Your task to perform on an android device: star an email in the gmail app Image 0: 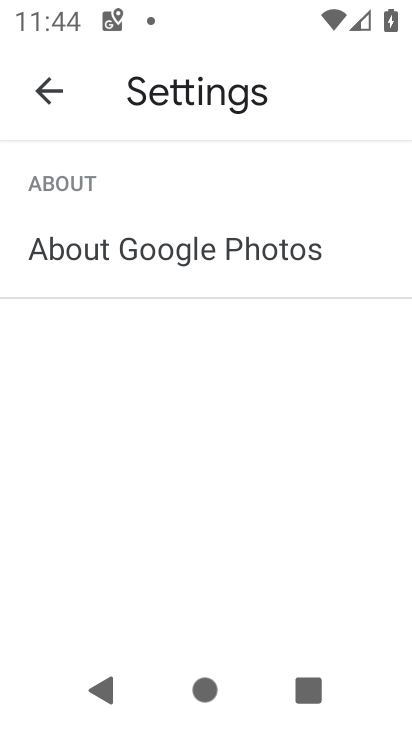
Step 0: drag from (262, 639) to (96, 44)
Your task to perform on an android device: star an email in the gmail app Image 1: 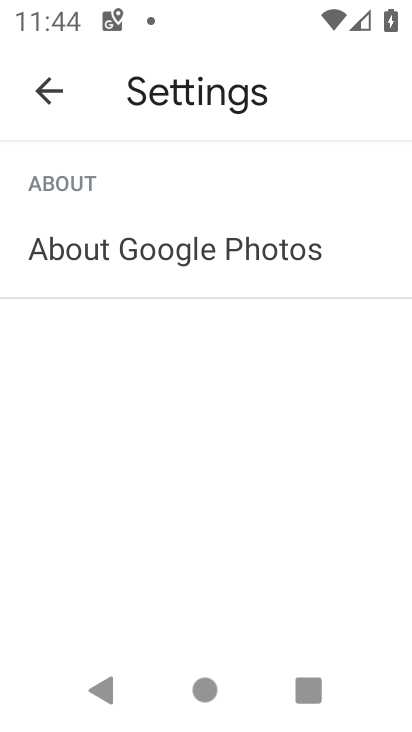
Step 1: click (46, 99)
Your task to perform on an android device: star an email in the gmail app Image 2: 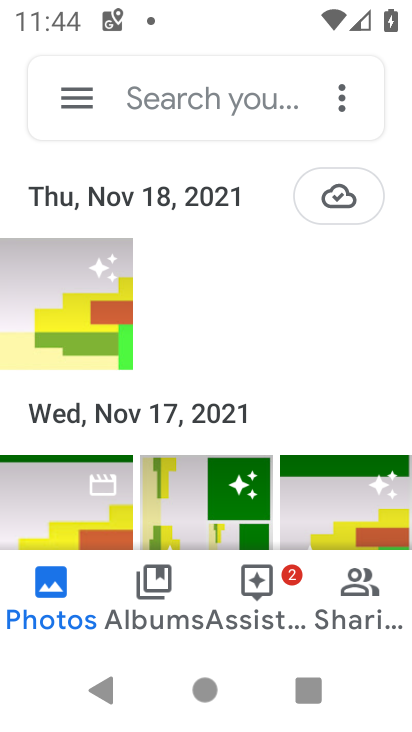
Step 2: press back button
Your task to perform on an android device: star an email in the gmail app Image 3: 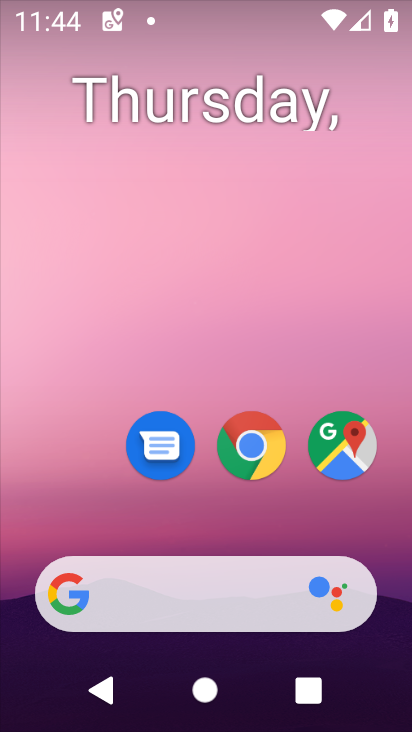
Step 3: drag from (253, 648) to (210, 156)
Your task to perform on an android device: star an email in the gmail app Image 4: 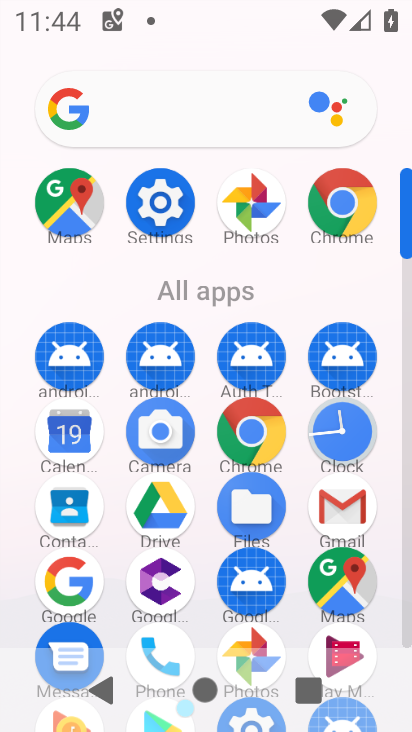
Step 4: click (337, 499)
Your task to perform on an android device: star an email in the gmail app Image 5: 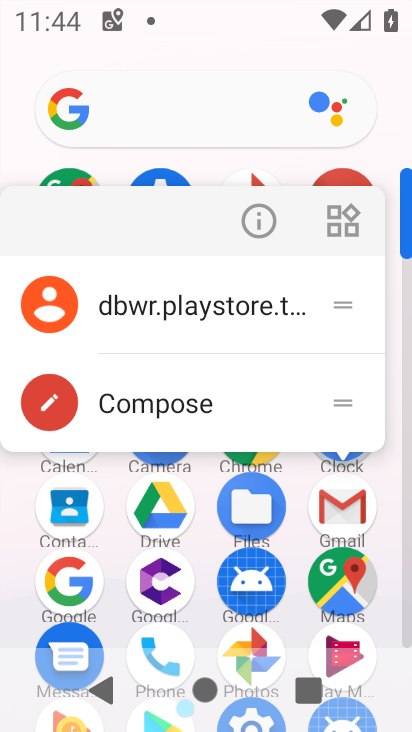
Step 5: click (341, 495)
Your task to perform on an android device: star an email in the gmail app Image 6: 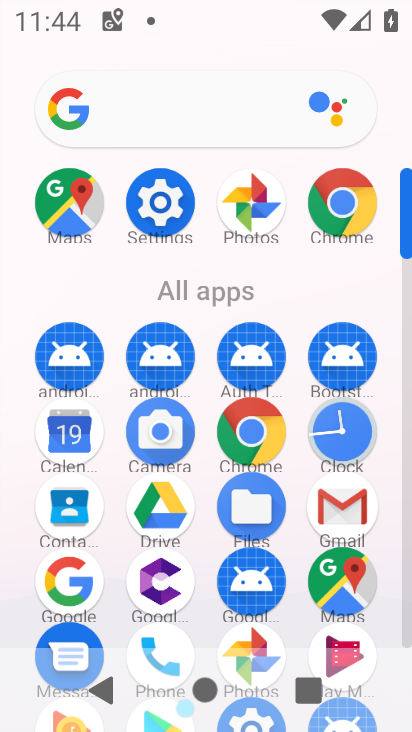
Step 6: click (343, 493)
Your task to perform on an android device: star an email in the gmail app Image 7: 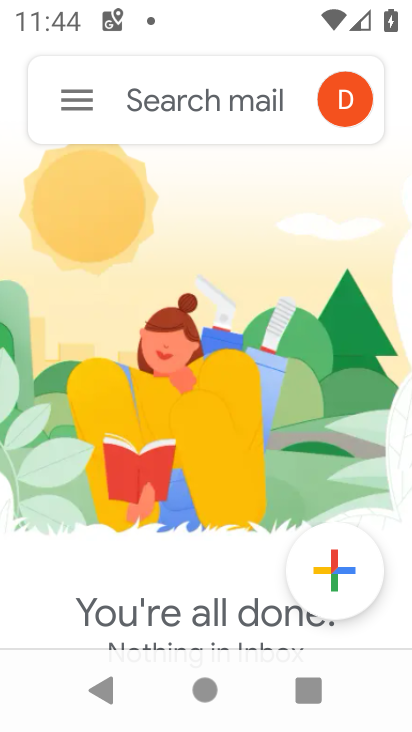
Step 7: click (89, 96)
Your task to perform on an android device: star an email in the gmail app Image 8: 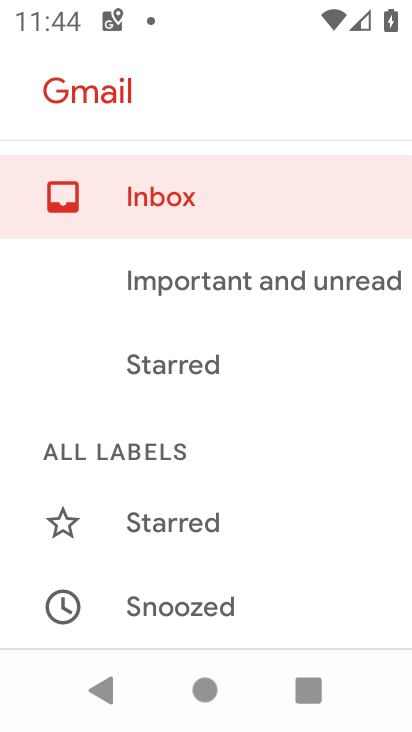
Step 8: click (124, 180)
Your task to perform on an android device: star an email in the gmail app Image 9: 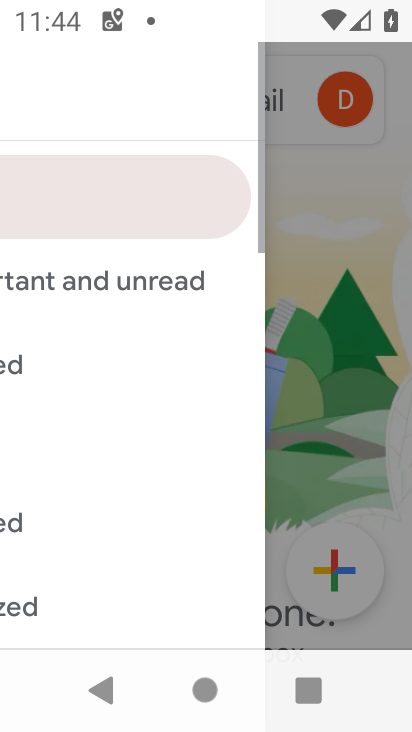
Step 9: drag from (163, 358) to (189, 130)
Your task to perform on an android device: star an email in the gmail app Image 10: 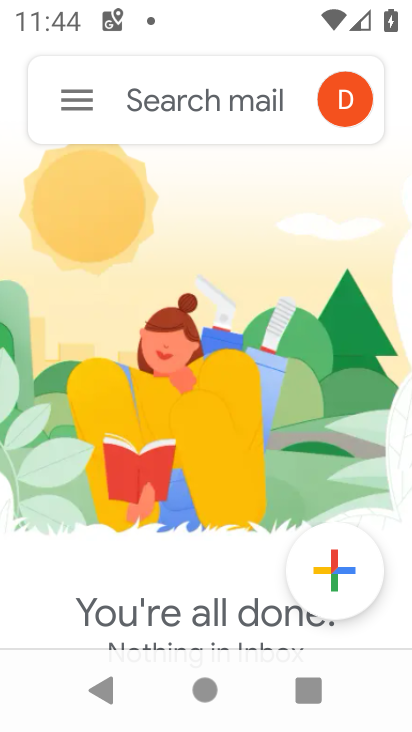
Step 10: drag from (173, 470) to (159, 123)
Your task to perform on an android device: star an email in the gmail app Image 11: 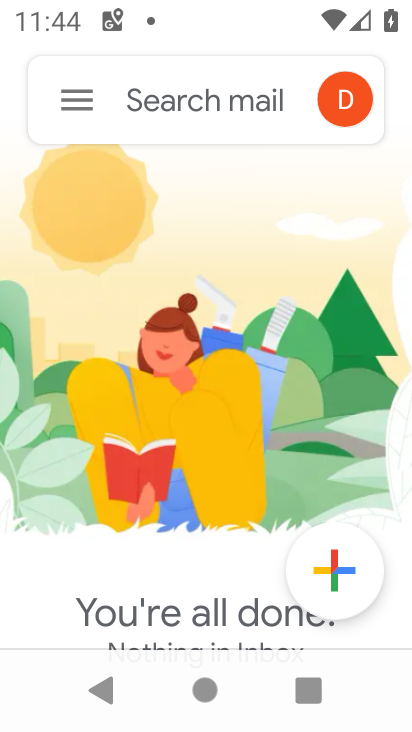
Step 11: click (76, 103)
Your task to perform on an android device: star an email in the gmail app Image 12: 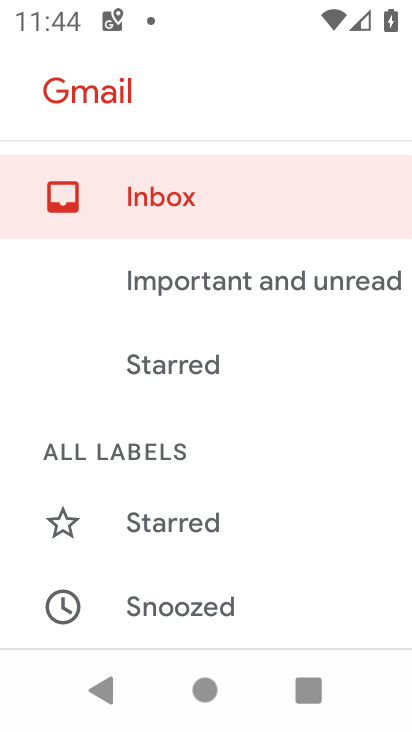
Step 12: drag from (143, 582) to (179, 259)
Your task to perform on an android device: star an email in the gmail app Image 13: 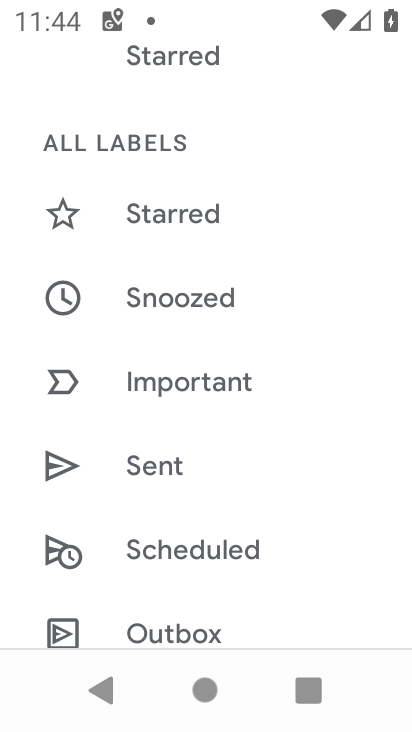
Step 13: drag from (215, 525) to (215, 219)
Your task to perform on an android device: star an email in the gmail app Image 14: 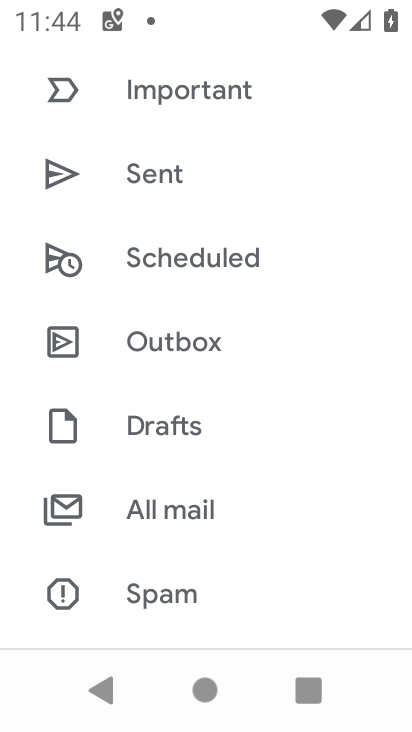
Step 14: drag from (175, 571) to (184, 137)
Your task to perform on an android device: star an email in the gmail app Image 15: 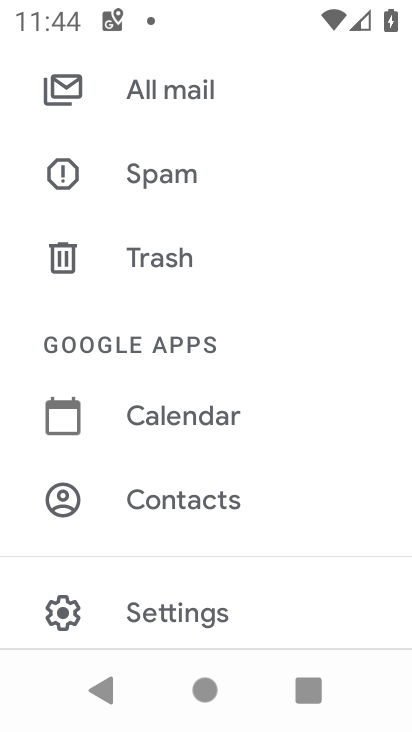
Step 15: drag from (204, 359) to (238, 592)
Your task to perform on an android device: star an email in the gmail app Image 16: 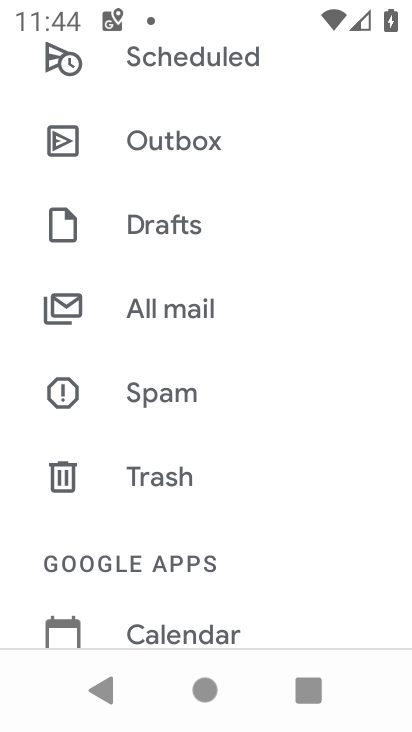
Step 16: drag from (200, 219) to (237, 503)
Your task to perform on an android device: star an email in the gmail app Image 17: 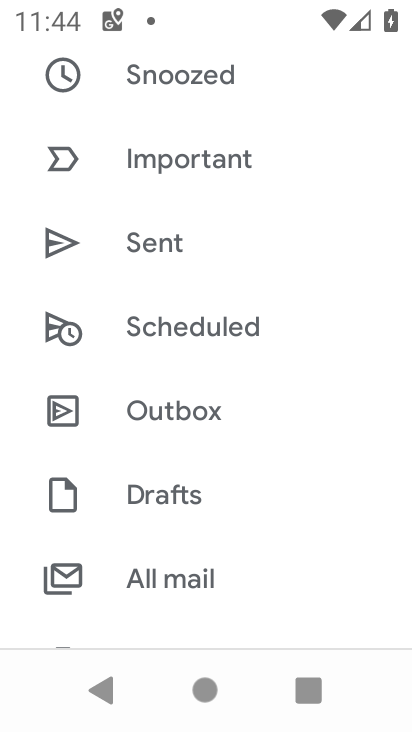
Step 17: click (168, 580)
Your task to perform on an android device: star an email in the gmail app Image 18: 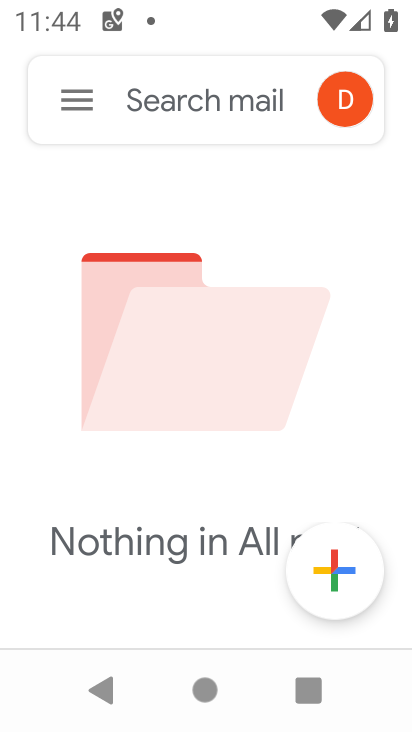
Step 18: task complete